Your task to perform on an android device: uninstall "Spotify: Music and Podcasts" Image 0: 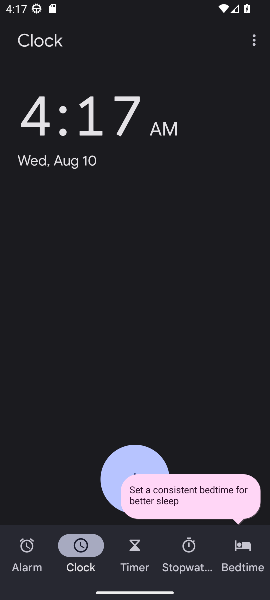
Step 0: press home button
Your task to perform on an android device: uninstall "Spotify: Music and Podcasts" Image 1: 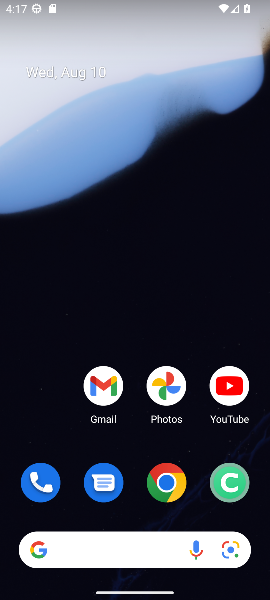
Step 1: drag from (141, 509) to (133, 21)
Your task to perform on an android device: uninstall "Spotify: Music and Podcasts" Image 2: 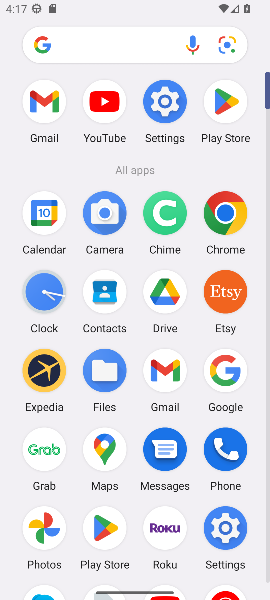
Step 2: click (221, 101)
Your task to perform on an android device: uninstall "Spotify: Music and Podcasts" Image 3: 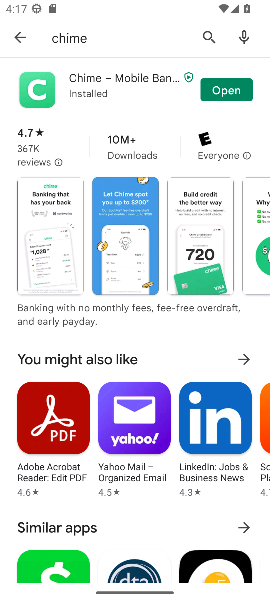
Step 3: click (202, 36)
Your task to perform on an android device: uninstall "Spotify: Music and Podcasts" Image 4: 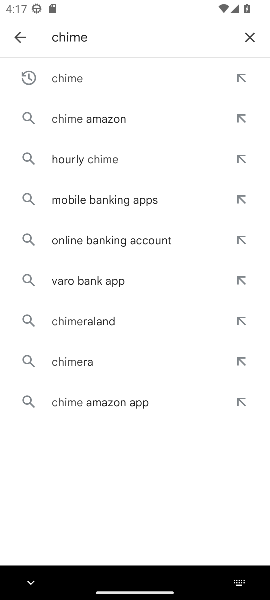
Step 4: click (245, 33)
Your task to perform on an android device: uninstall "Spotify: Music and Podcasts" Image 5: 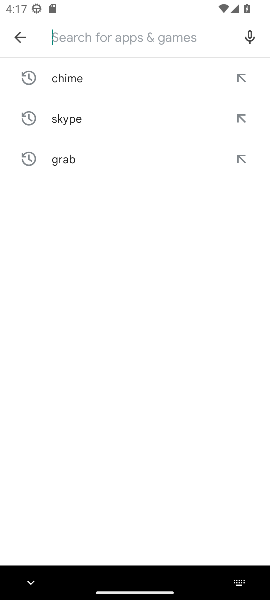
Step 5: type "Spotify: Music and Podcasts"
Your task to perform on an android device: uninstall "Spotify: Music and Podcasts" Image 6: 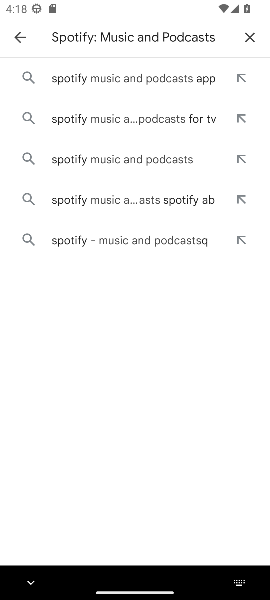
Step 6: click (135, 77)
Your task to perform on an android device: uninstall "Spotify: Music and Podcasts" Image 7: 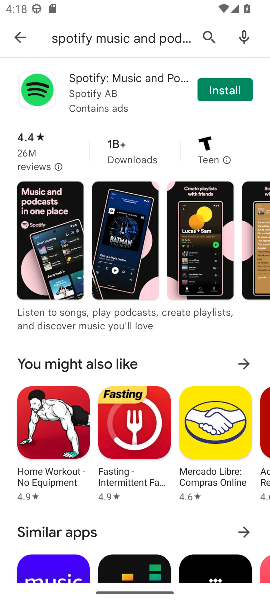
Step 7: task complete